Your task to perform on an android device: Go to Yahoo.com Image 0: 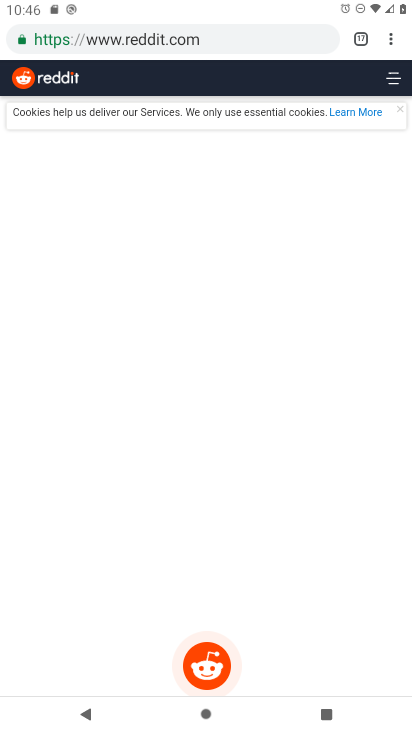
Step 0: press home button
Your task to perform on an android device: Go to Yahoo.com Image 1: 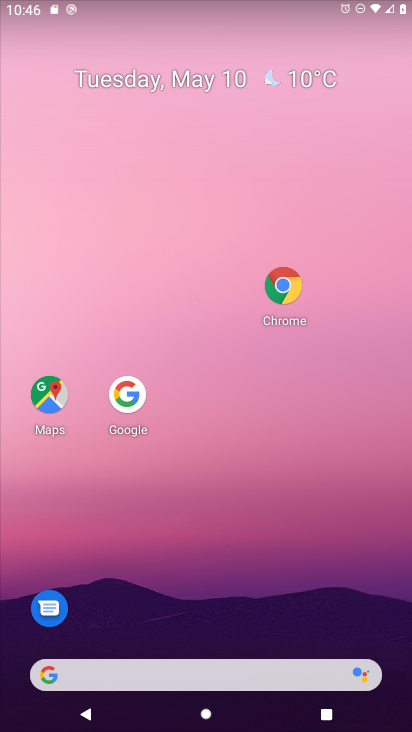
Step 1: click (282, 286)
Your task to perform on an android device: Go to Yahoo.com Image 2: 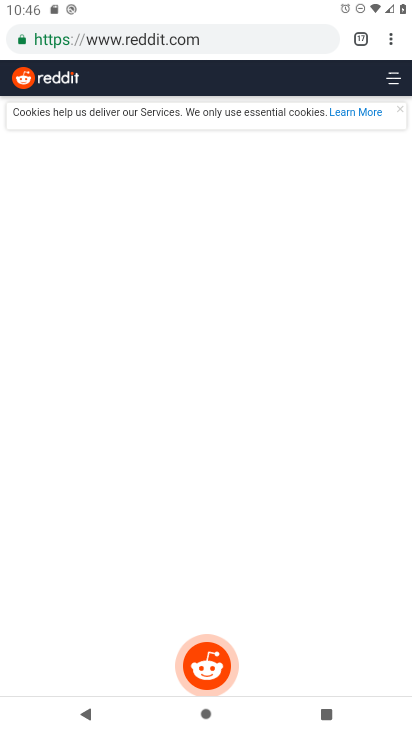
Step 2: drag from (391, 43) to (298, 81)
Your task to perform on an android device: Go to Yahoo.com Image 3: 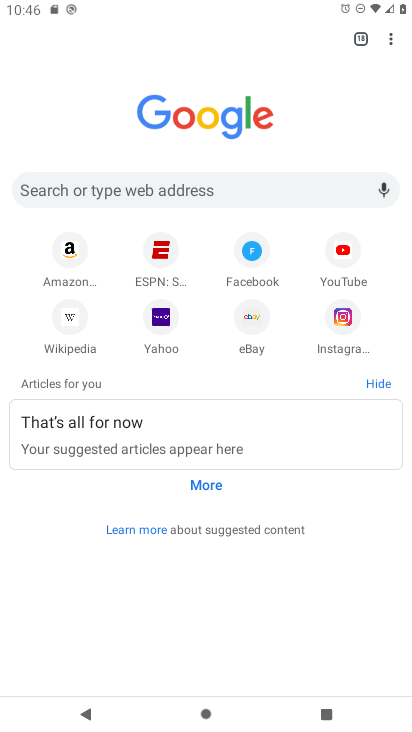
Step 3: click (162, 326)
Your task to perform on an android device: Go to Yahoo.com Image 4: 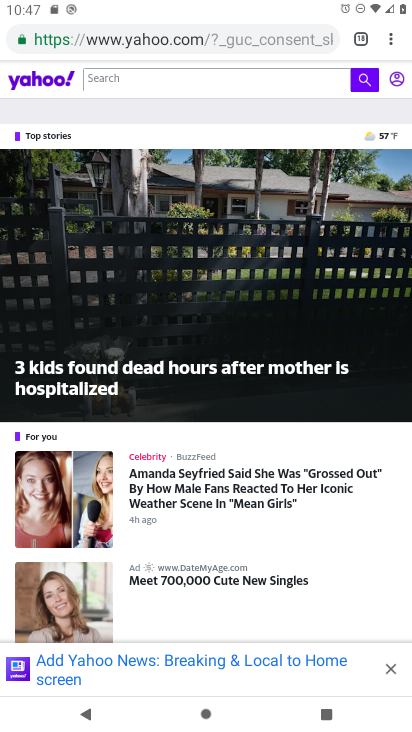
Step 4: task complete